Your task to perform on an android device: show emergency info Image 0: 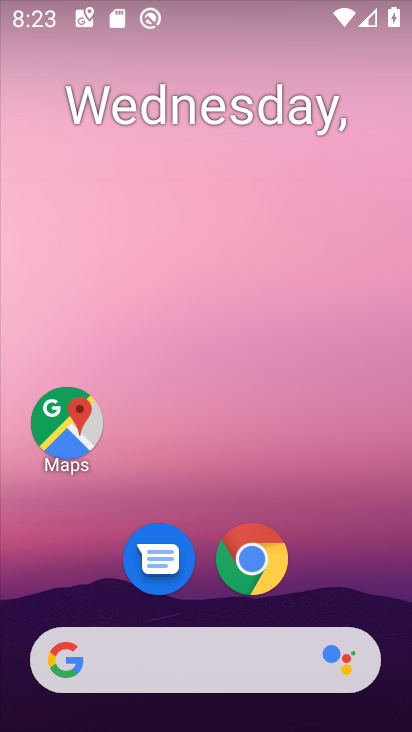
Step 0: click (348, 189)
Your task to perform on an android device: show emergency info Image 1: 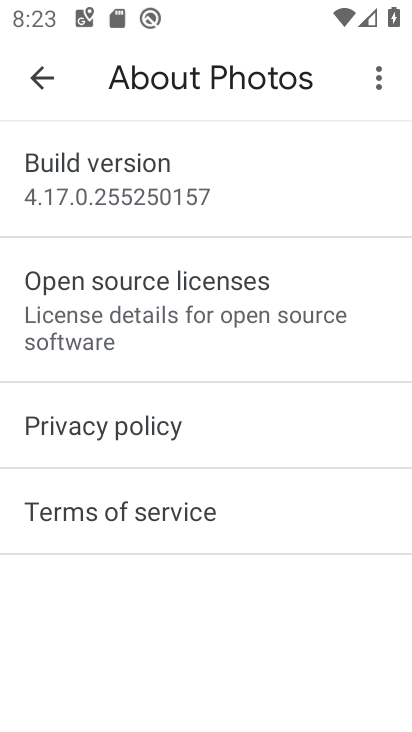
Step 1: press home button
Your task to perform on an android device: show emergency info Image 2: 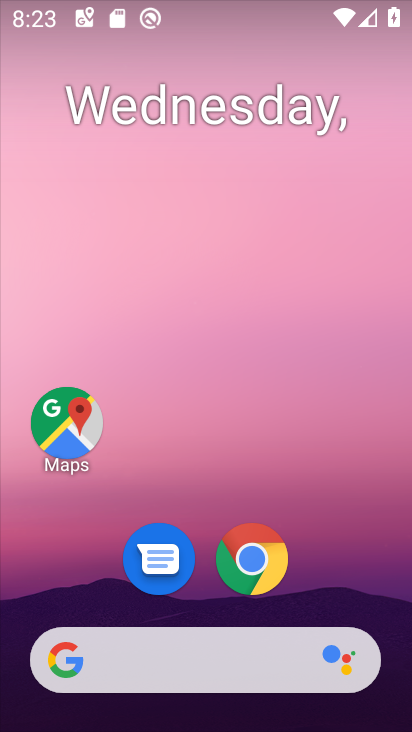
Step 2: drag from (382, 516) to (384, 109)
Your task to perform on an android device: show emergency info Image 3: 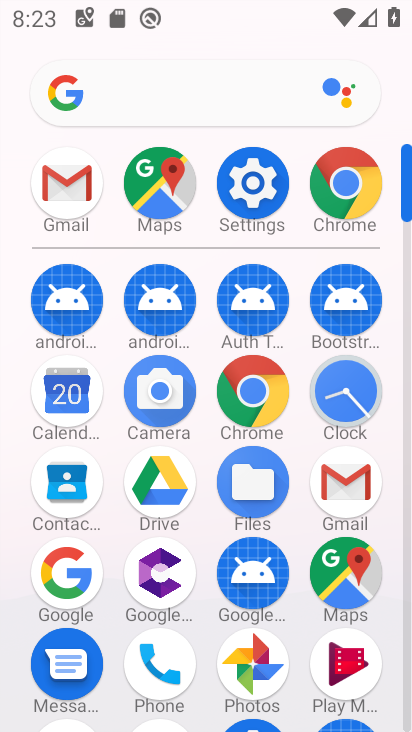
Step 3: click (256, 174)
Your task to perform on an android device: show emergency info Image 4: 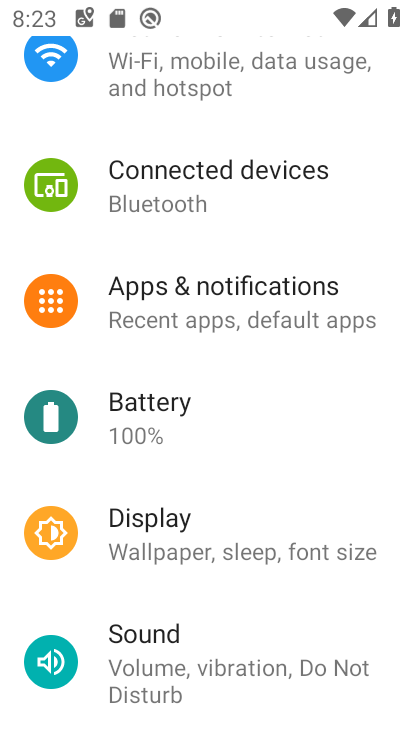
Step 4: drag from (279, 587) to (288, 274)
Your task to perform on an android device: show emergency info Image 5: 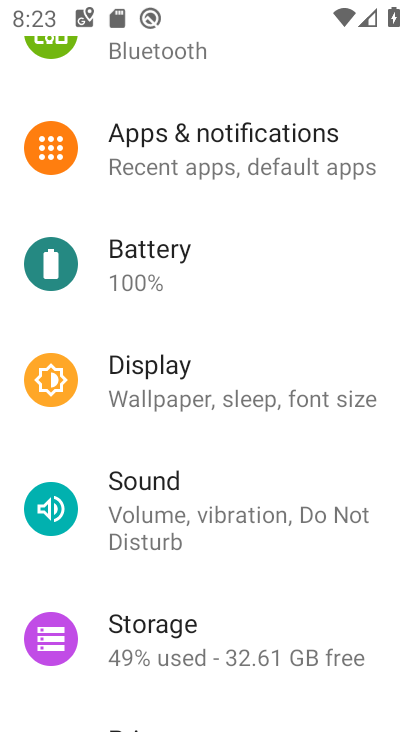
Step 5: drag from (284, 680) to (295, 371)
Your task to perform on an android device: show emergency info Image 6: 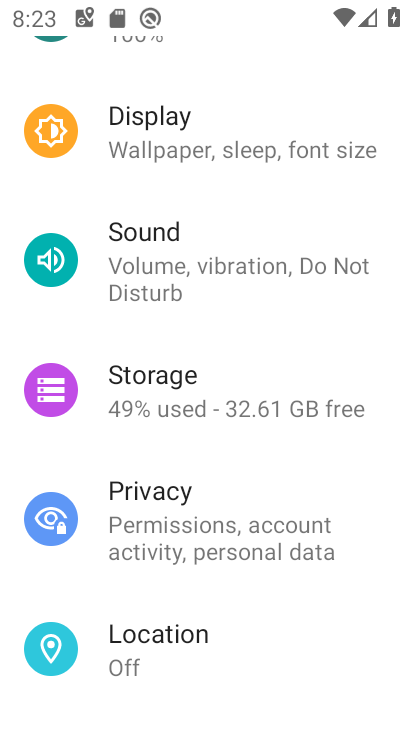
Step 6: drag from (334, 632) to (350, 359)
Your task to perform on an android device: show emergency info Image 7: 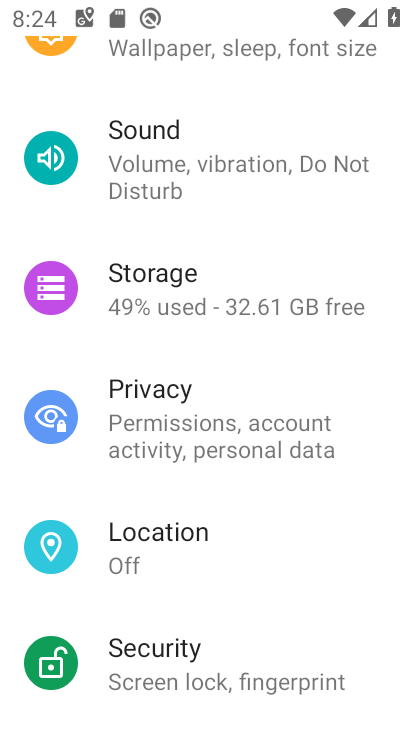
Step 7: drag from (343, 619) to (332, 199)
Your task to perform on an android device: show emergency info Image 8: 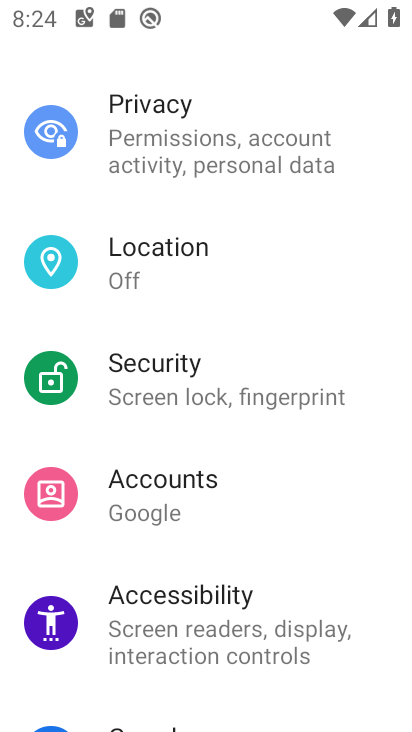
Step 8: drag from (313, 515) to (315, 227)
Your task to perform on an android device: show emergency info Image 9: 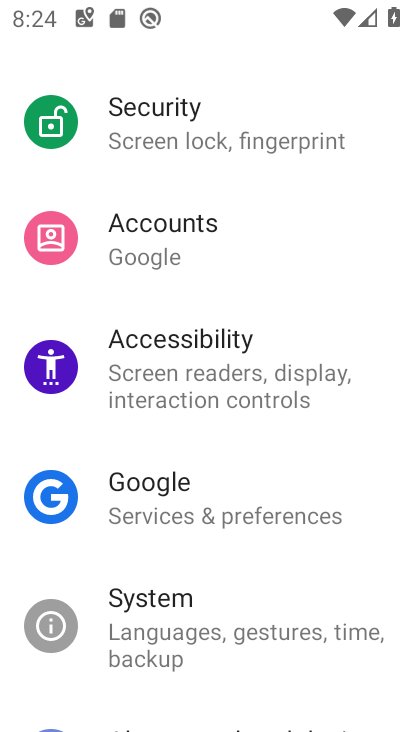
Step 9: drag from (326, 658) to (285, 285)
Your task to perform on an android device: show emergency info Image 10: 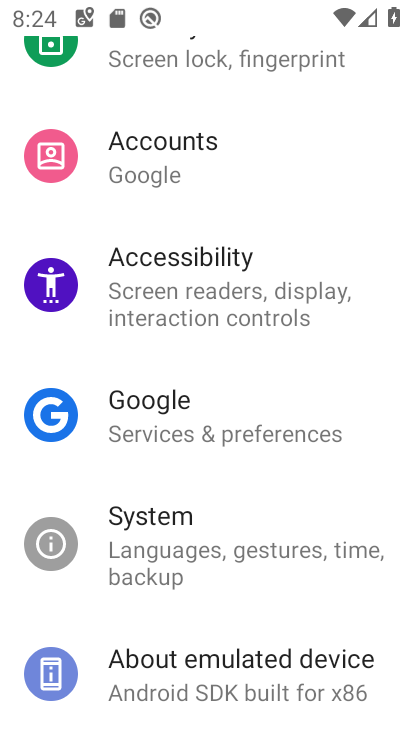
Step 10: drag from (281, 611) to (278, 340)
Your task to perform on an android device: show emergency info Image 11: 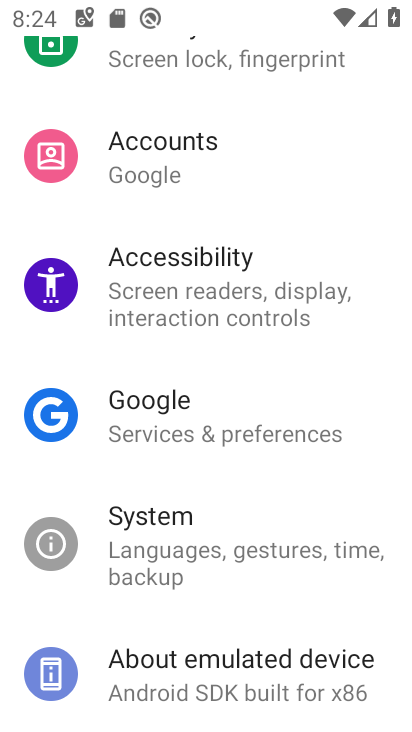
Step 11: click (209, 667)
Your task to perform on an android device: show emergency info Image 12: 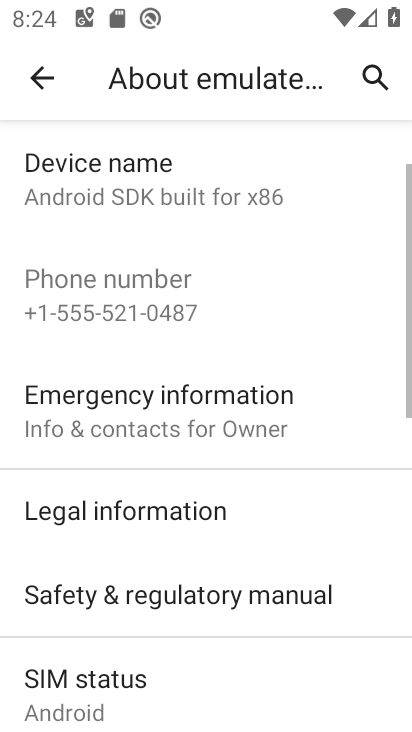
Step 12: click (219, 395)
Your task to perform on an android device: show emergency info Image 13: 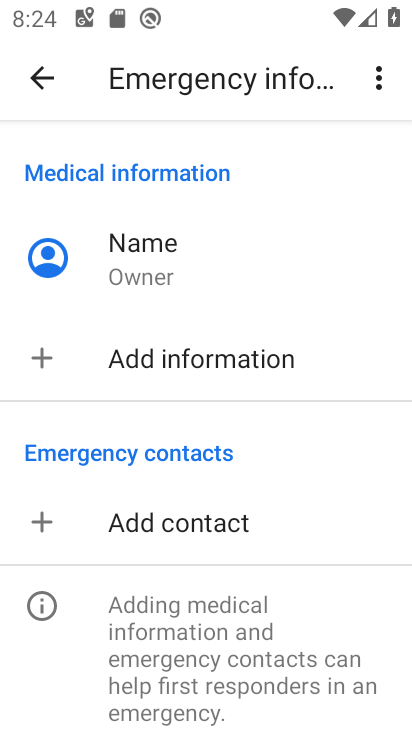
Step 13: task complete